Your task to perform on an android device: check data usage Image 0: 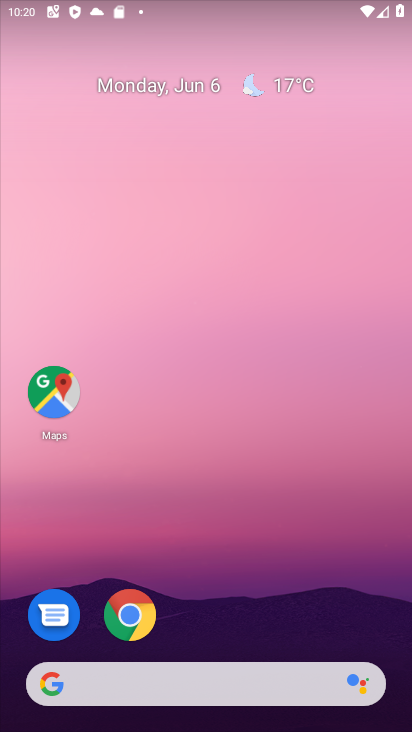
Step 0: drag from (228, 573) to (305, 40)
Your task to perform on an android device: check data usage Image 1: 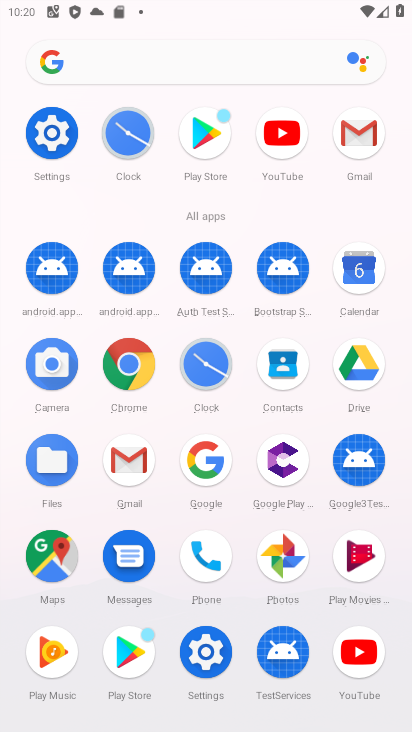
Step 1: click (45, 125)
Your task to perform on an android device: check data usage Image 2: 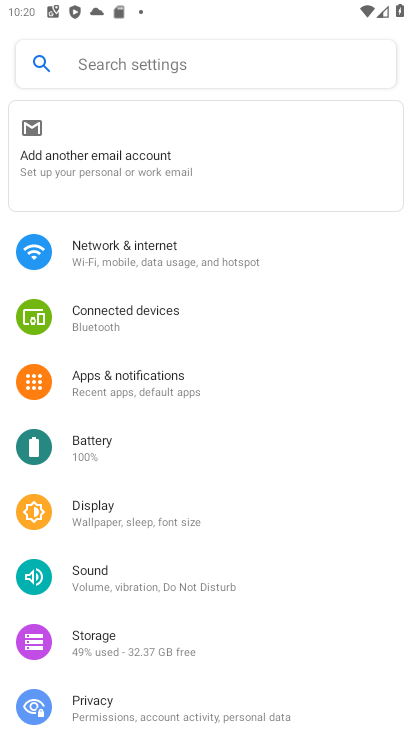
Step 2: click (170, 255)
Your task to perform on an android device: check data usage Image 3: 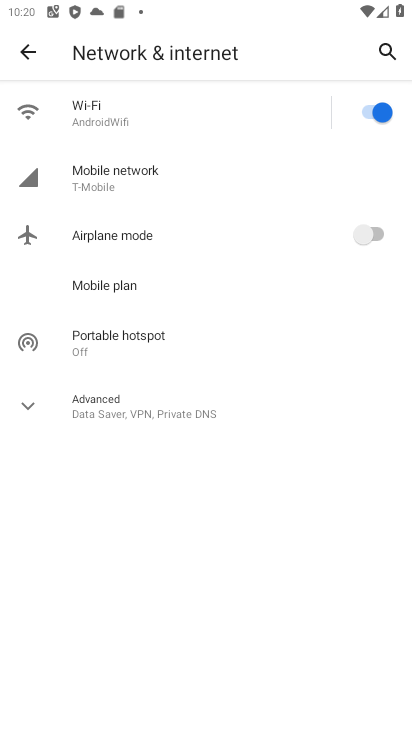
Step 3: click (126, 193)
Your task to perform on an android device: check data usage Image 4: 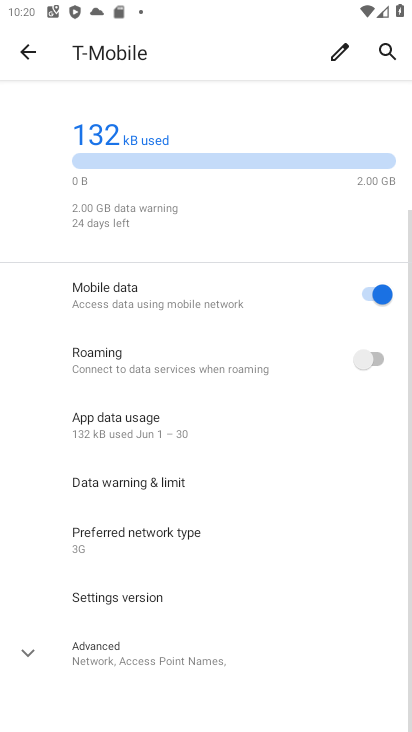
Step 4: task complete